Your task to perform on an android device: allow notifications from all sites in the chrome app Image 0: 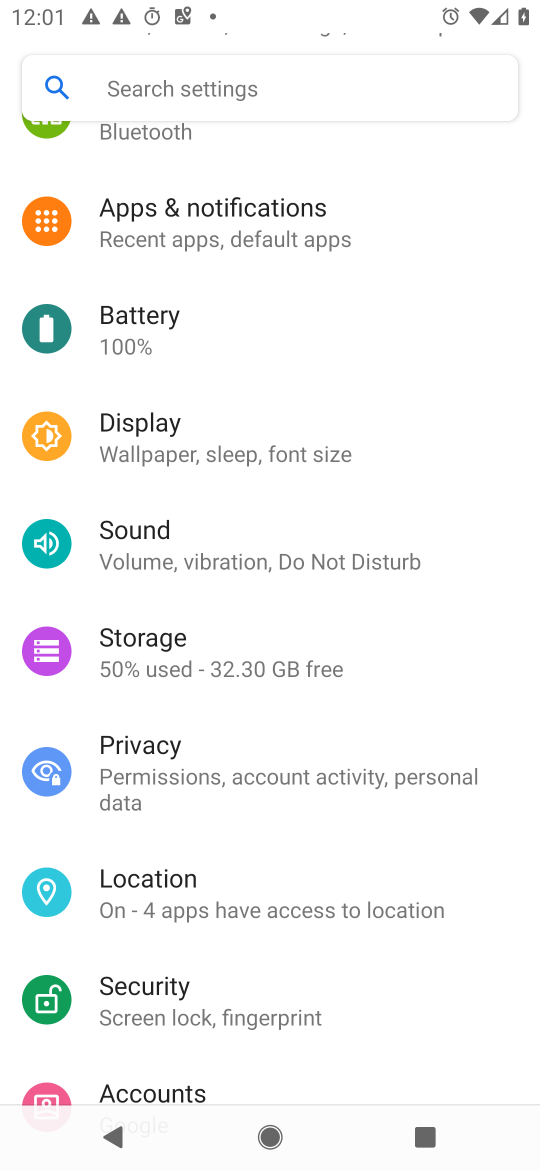
Step 0: press home button
Your task to perform on an android device: allow notifications from all sites in the chrome app Image 1: 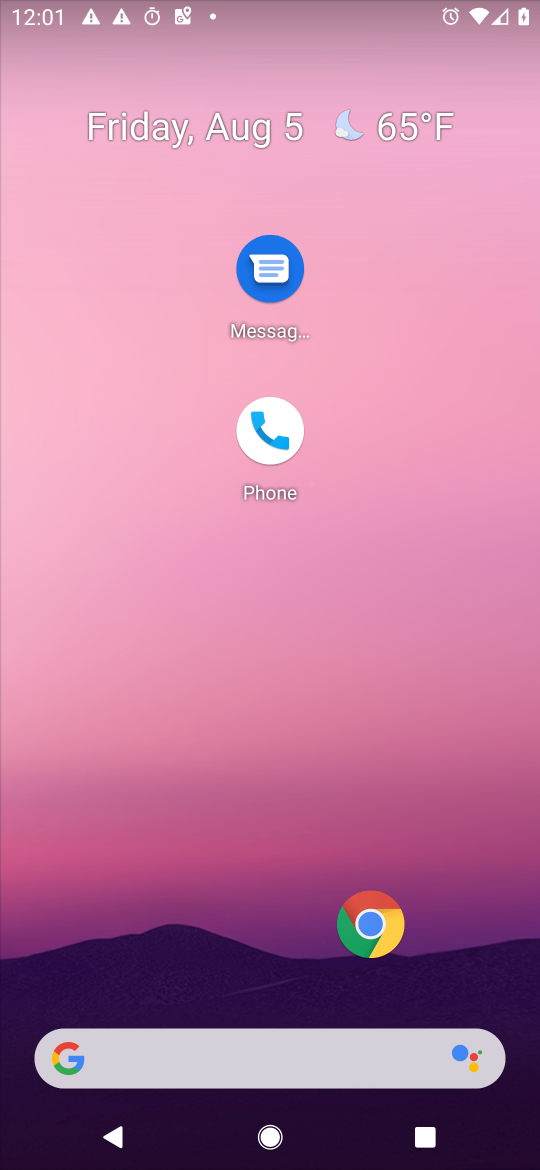
Step 1: drag from (247, 985) to (356, 246)
Your task to perform on an android device: allow notifications from all sites in the chrome app Image 2: 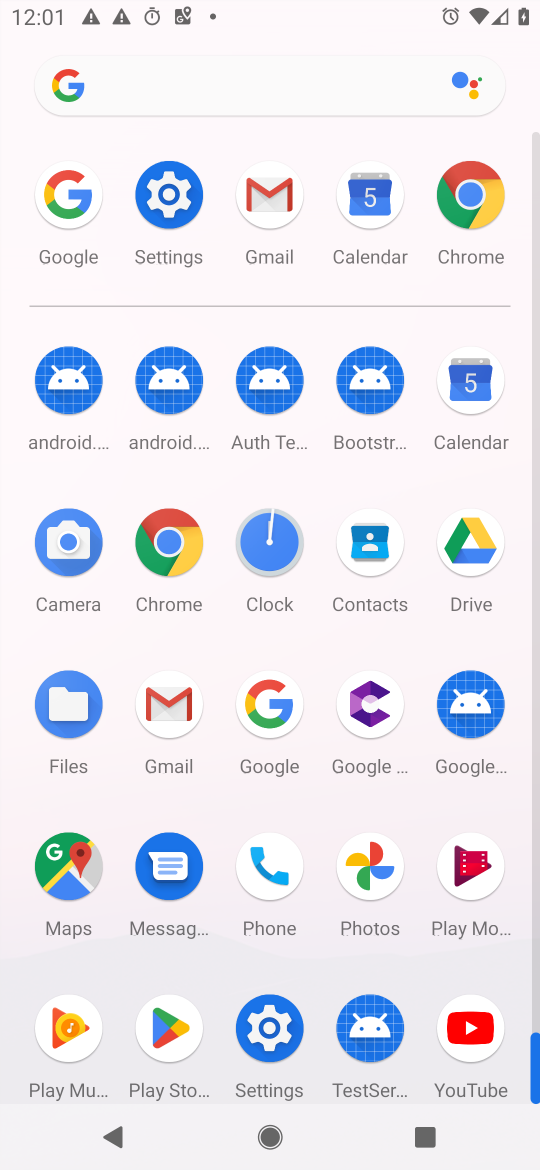
Step 2: click (159, 541)
Your task to perform on an android device: allow notifications from all sites in the chrome app Image 3: 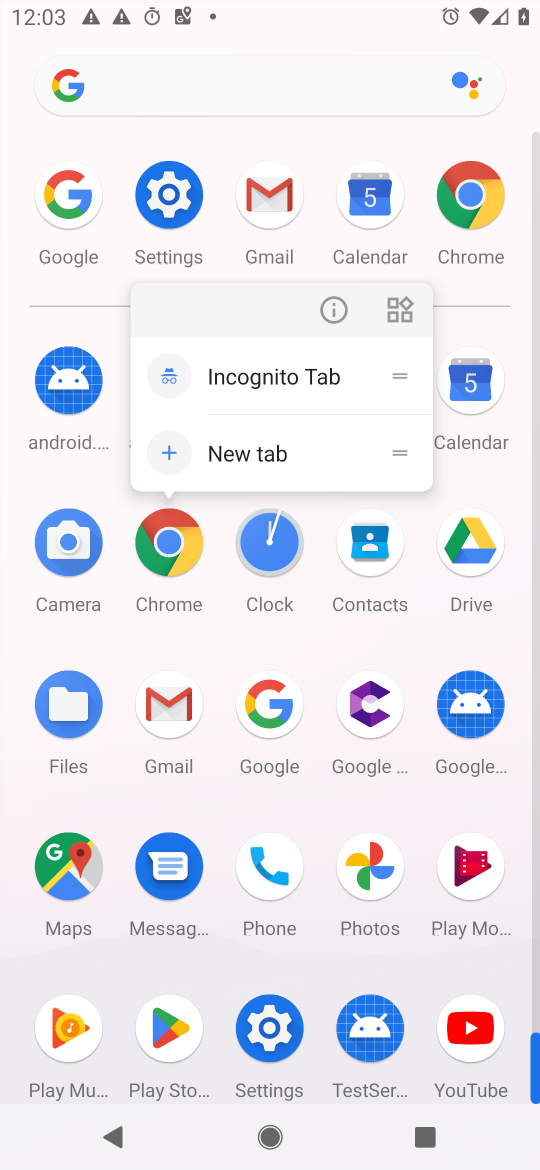
Step 3: click (336, 321)
Your task to perform on an android device: allow notifications from all sites in the chrome app Image 4: 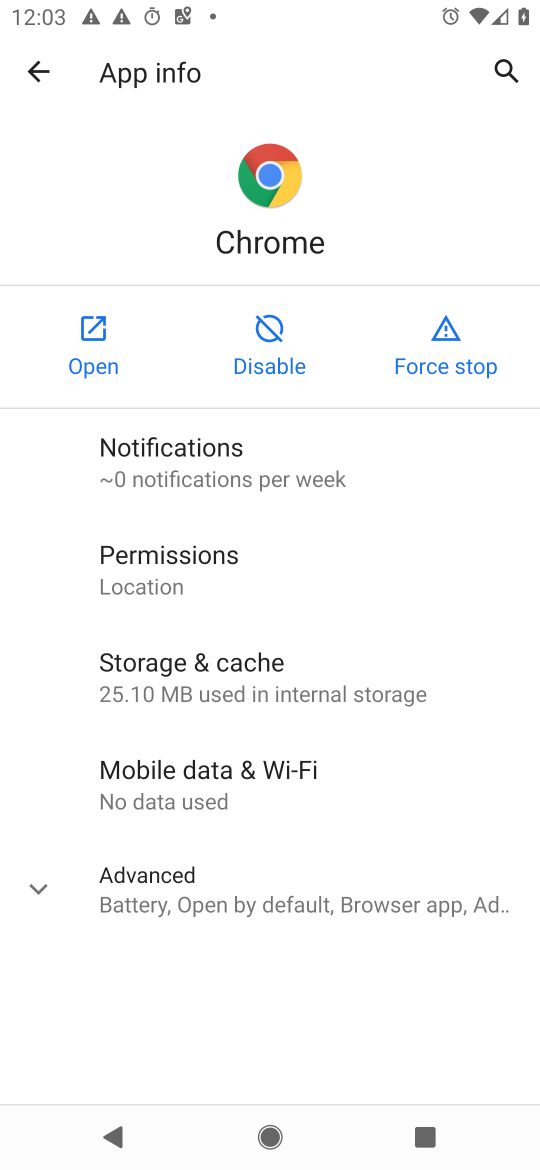
Step 4: click (88, 322)
Your task to perform on an android device: allow notifications from all sites in the chrome app Image 5: 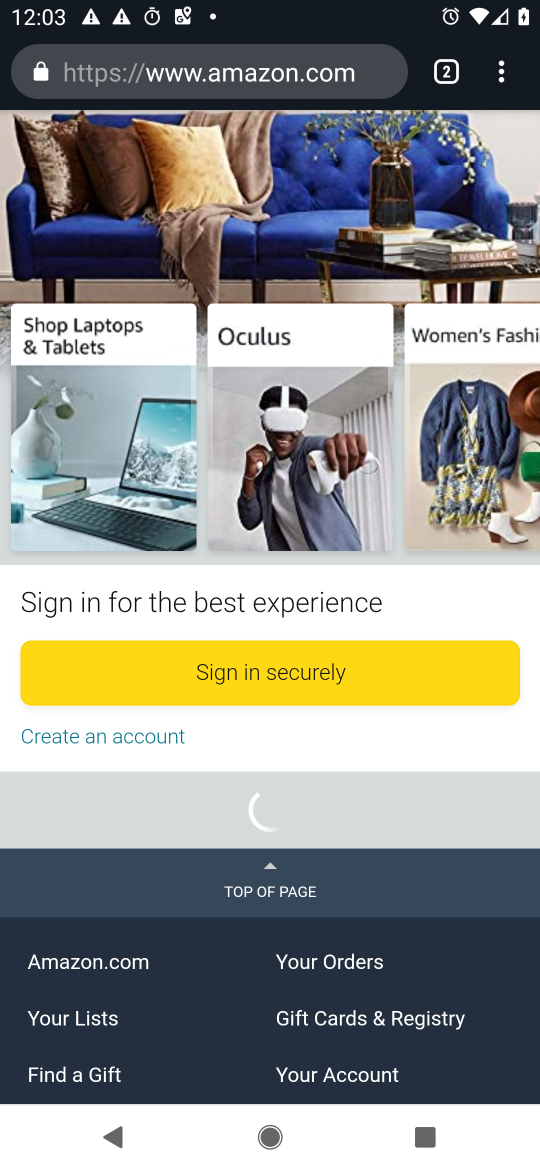
Step 5: drag from (311, 822) to (388, 246)
Your task to perform on an android device: allow notifications from all sites in the chrome app Image 6: 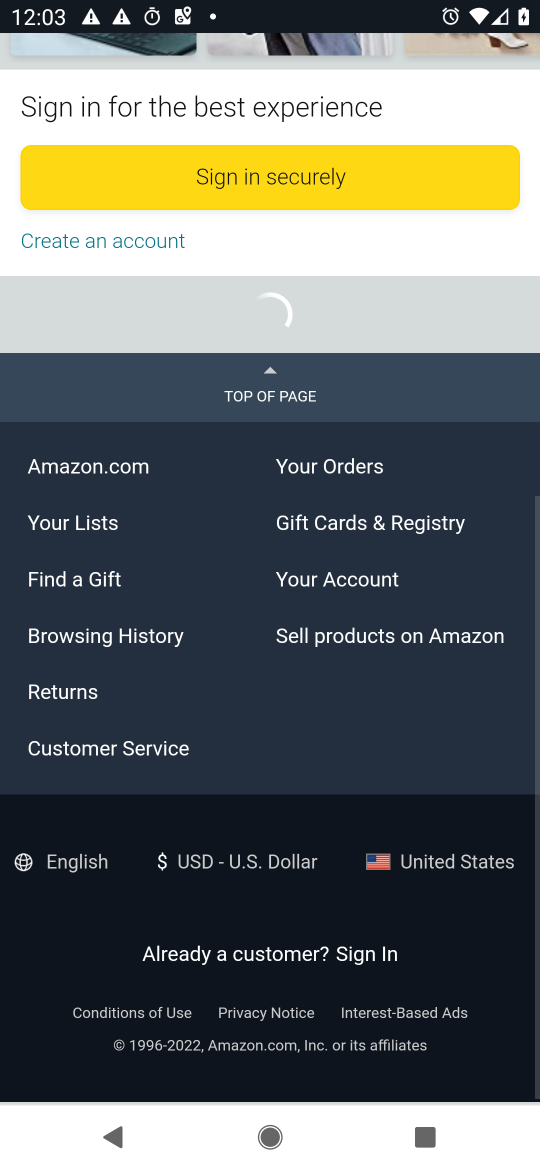
Step 6: drag from (319, 401) to (427, 1169)
Your task to perform on an android device: allow notifications from all sites in the chrome app Image 7: 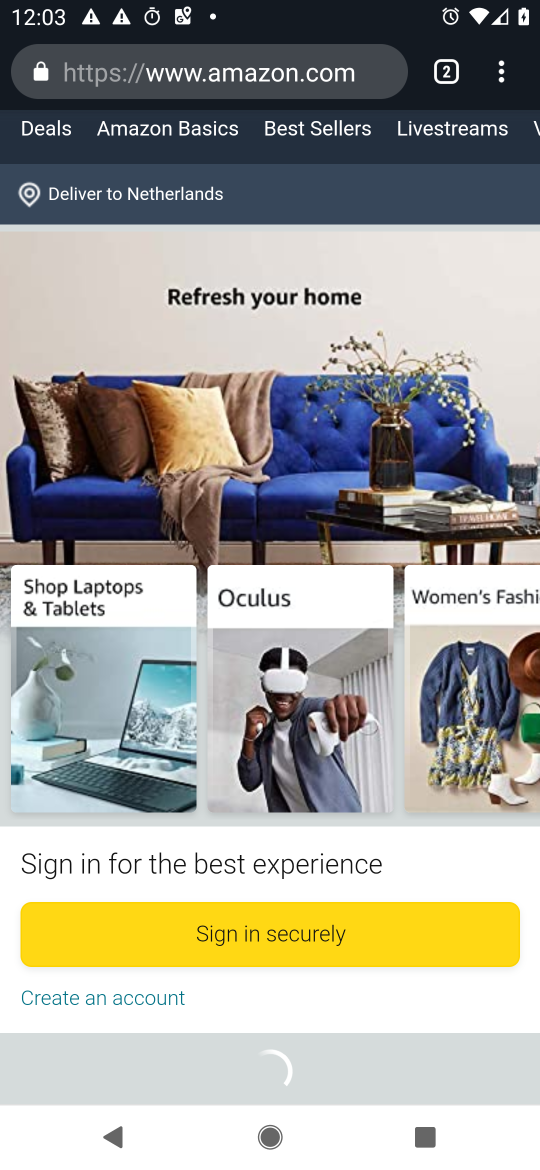
Step 7: drag from (354, 1040) to (462, 496)
Your task to perform on an android device: allow notifications from all sites in the chrome app Image 8: 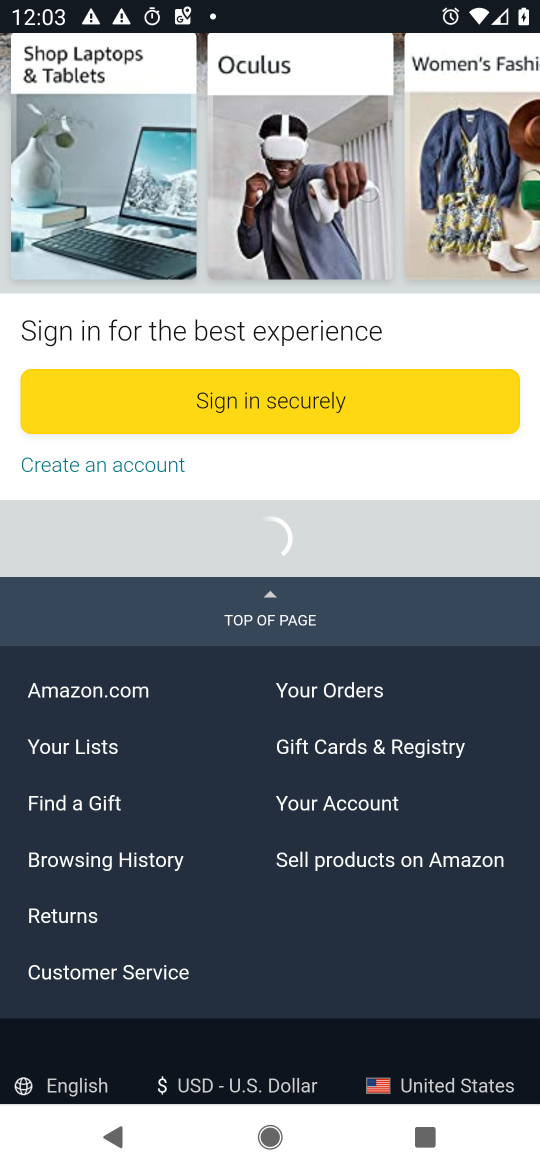
Step 8: drag from (377, 453) to (530, 1159)
Your task to perform on an android device: allow notifications from all sites in the chrome app Image 9: 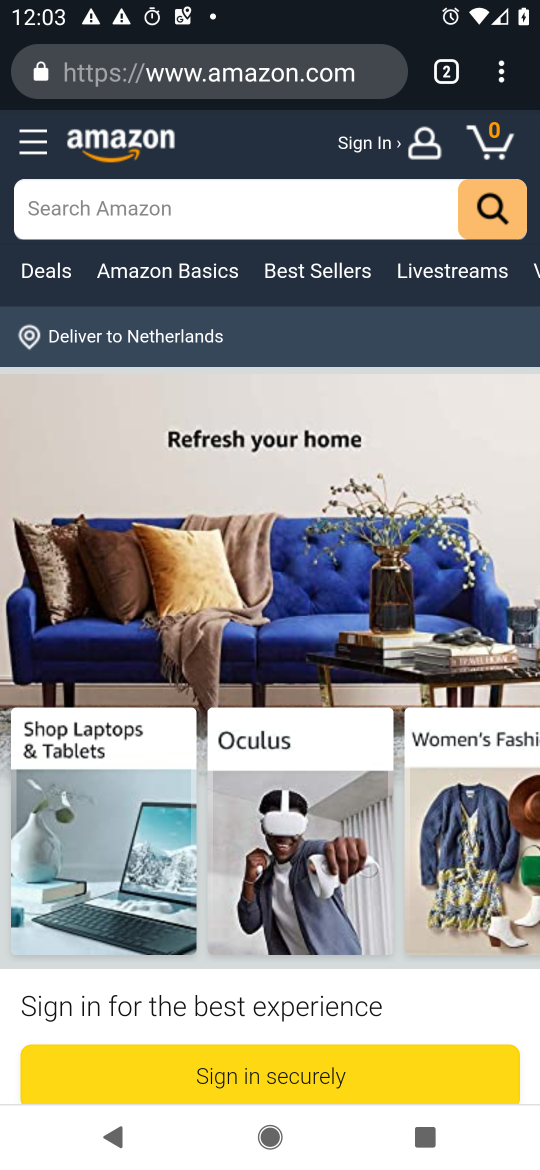
Step 9: drag from (505, 80) to (297, 866)
Your task to perform on an android device: allow notifications from all sites in the chrome app Image 10: 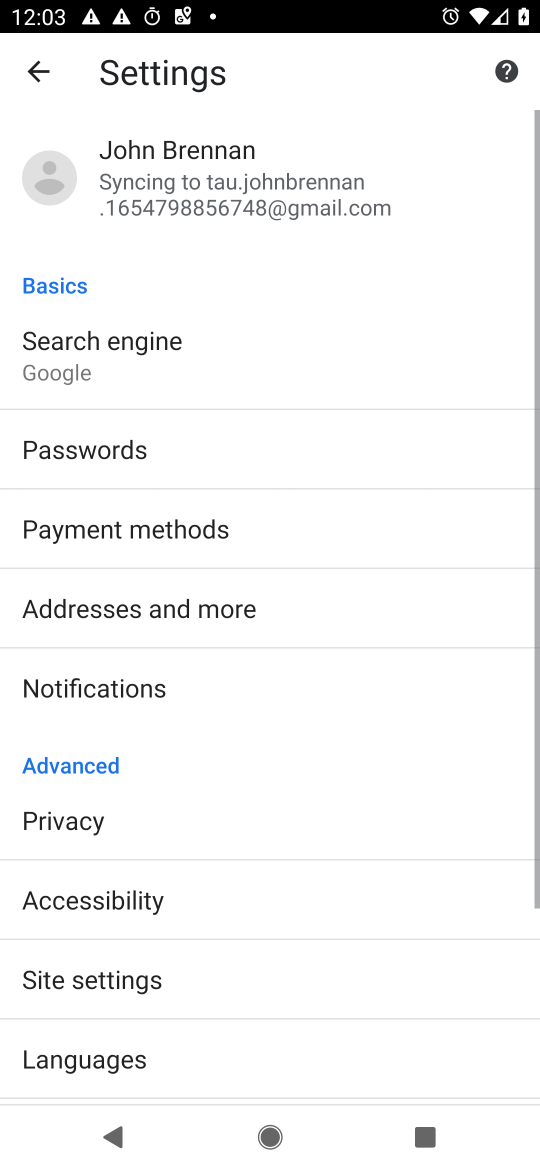
Step 10: drag from (297, 866) to (340, 274)
Your task to perform on an android device: allow notifications from all sites in the chrome app Image 11: 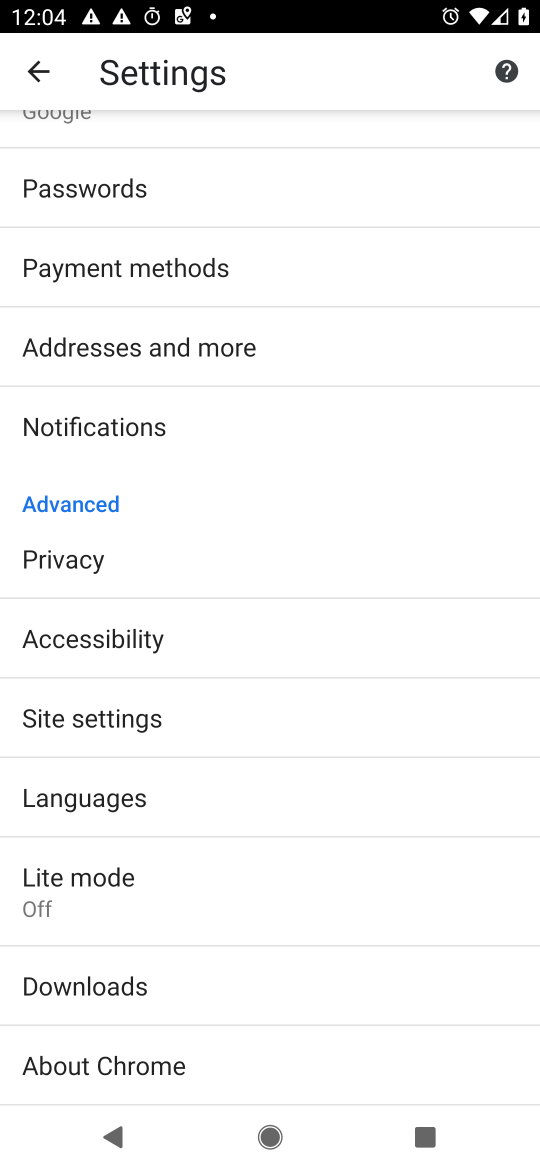
Step 11: click (192, 706)
Your task to perform on an android device: allow notifications from all sites in the chrome app Image 12: 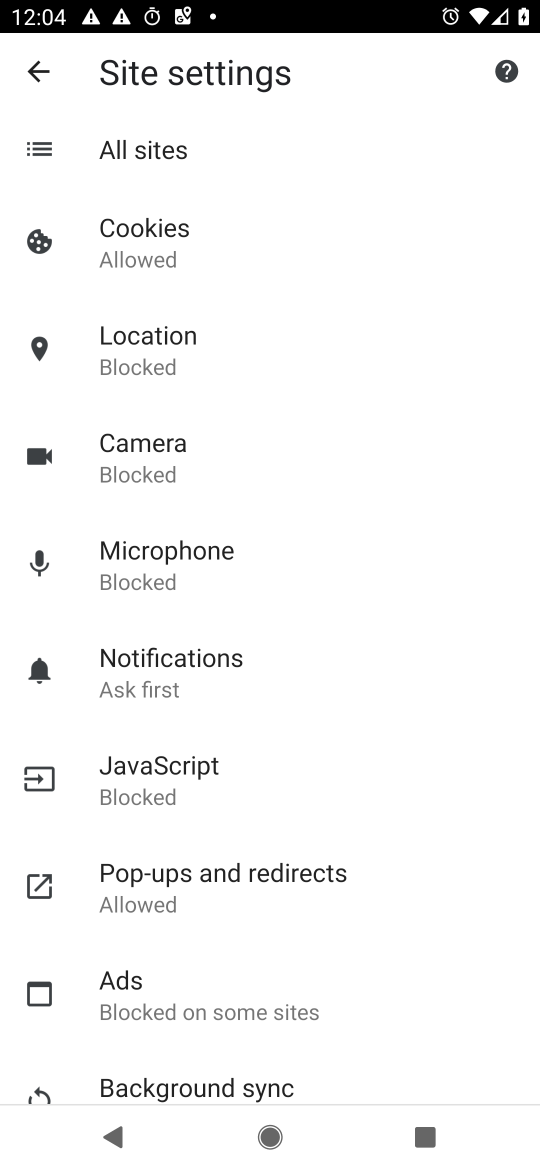
Step 12: click (211, 668)
Your task to perform on an android device: allow notifications from all sites in the chrome app Image 13: 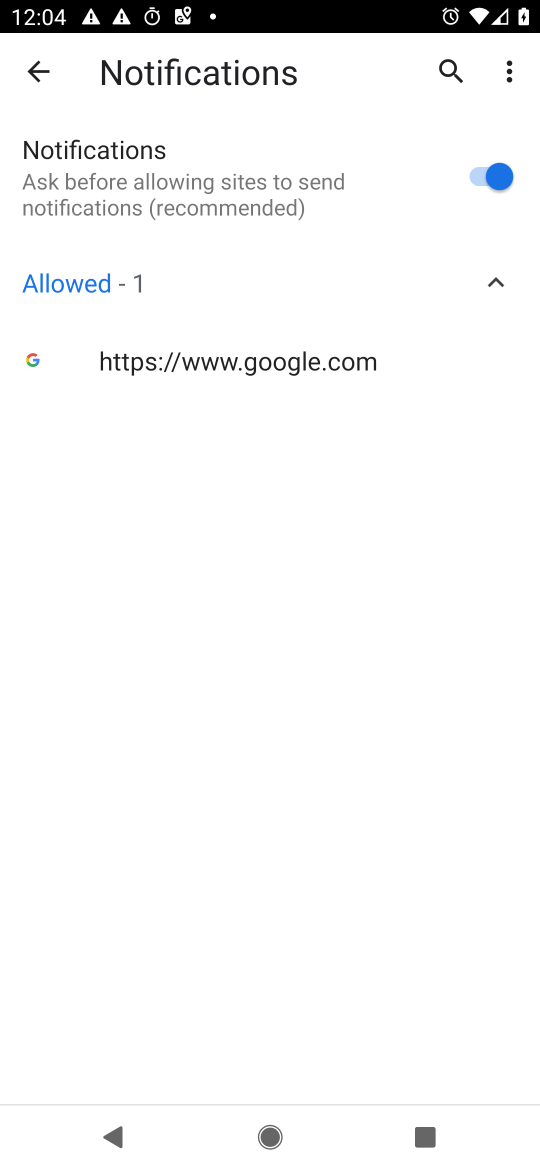
Step 13: task complete